Your task to perform on an android device: turn off location history Image 0: 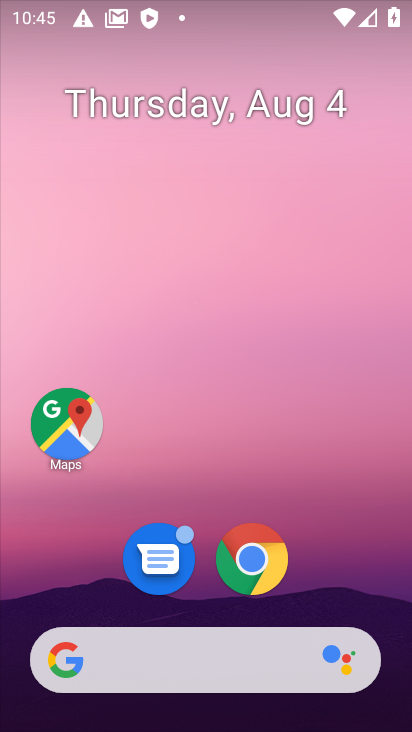
Step 0: drag from (369, 569) to (333, 162)
Your task to perform on an android device: turn off location history Image 1: 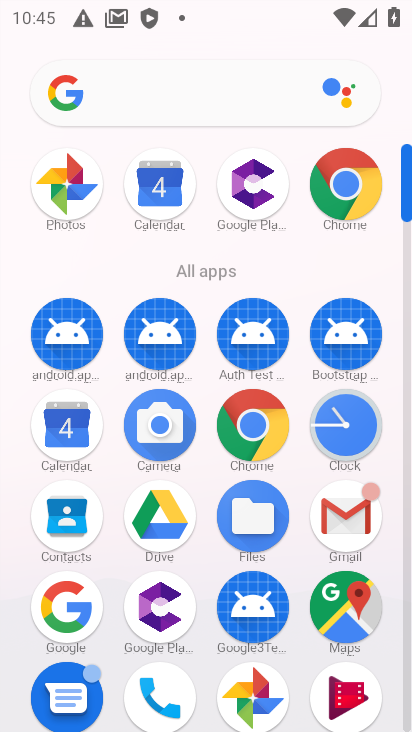
Step 1: click (408, 698)
Your task to perform on an android device: turn off location history Image 2: 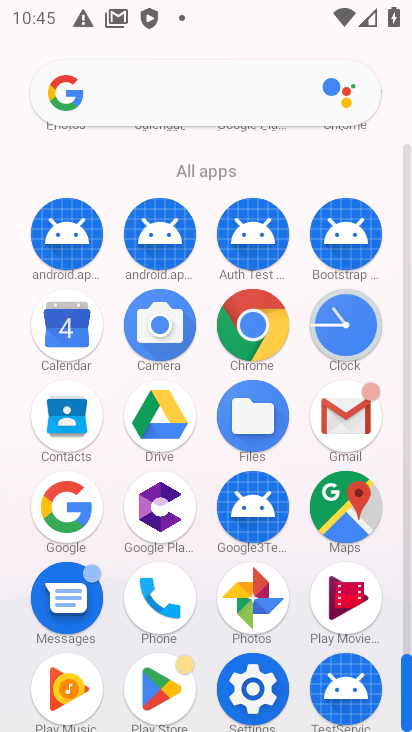
Step 2: click (329, 532)
Your task to perform on an android device: turn off location history Image 3: 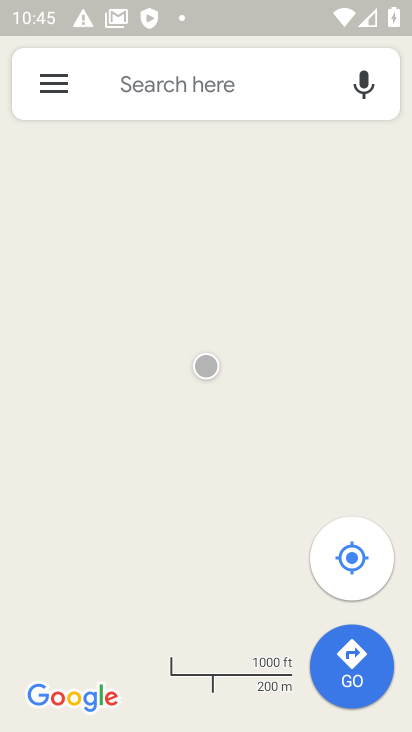
Step 3: click (53, 86)
Your task to perform on an android device: turn off location history Image 4: 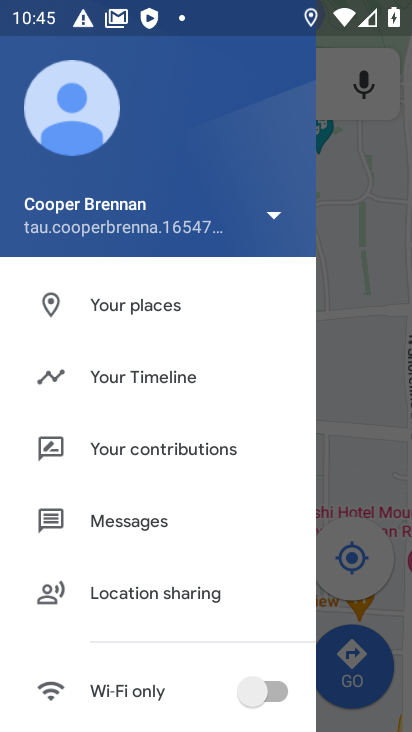
Step 4: drag from (163, 673) to (150, 549)
Your task to perform on an android device: turn off location history Image 5: 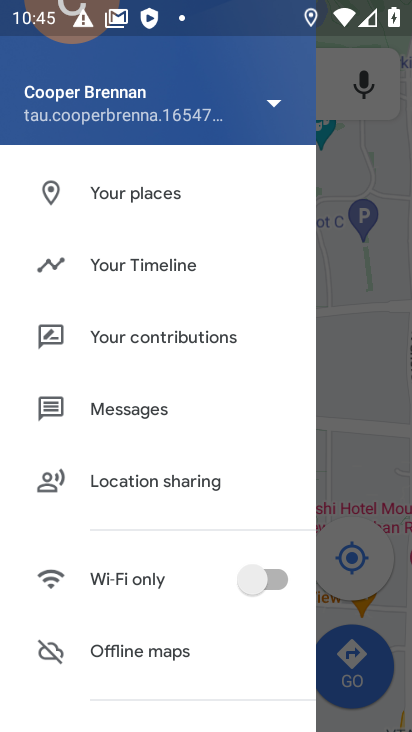
Step 5: click (182, 267)
Your task to perform on an android device: turn off location history Image 6: 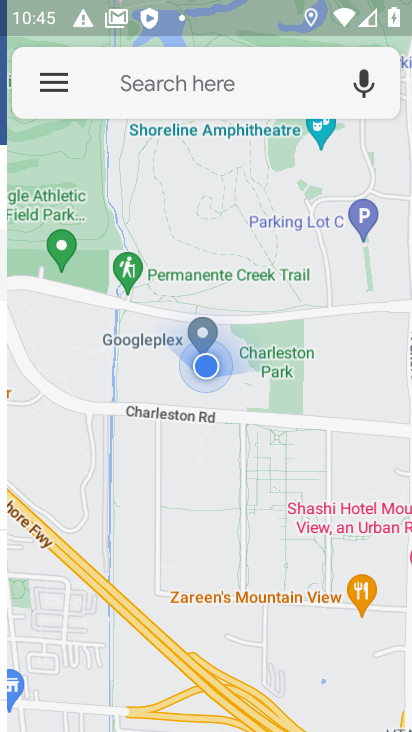
Step 6: click (160, 260)
Your task to perform on an android device: turn off location history Image 7: 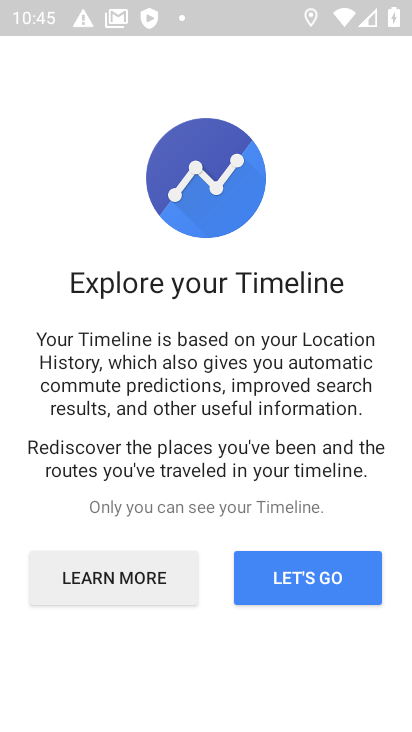
Step 7: click (176, 280)
Your task to perform on an android device: turn off location history Image 8: 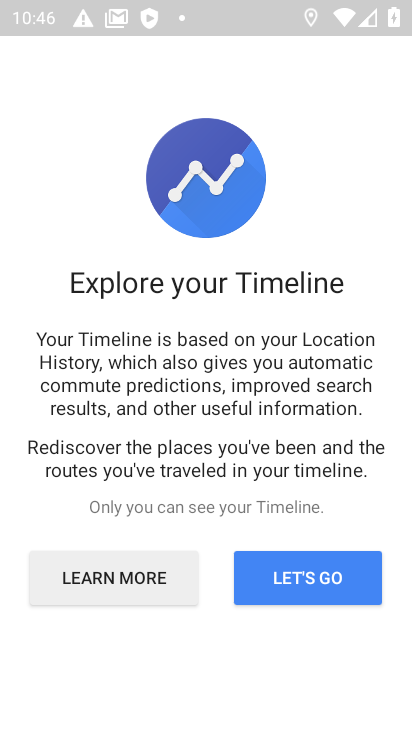
Step 8: click (316, 570)
Your task to perform on an android device: turn off location history Image 9: 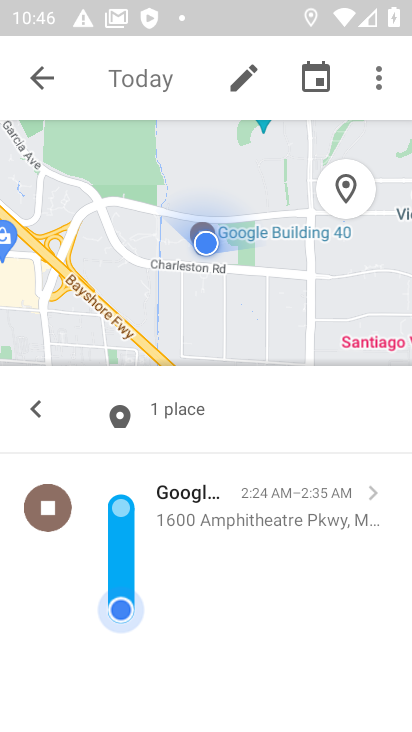
Step 9: click (375, 84)
Your task to perform on an android device: turn off location history Image 10: 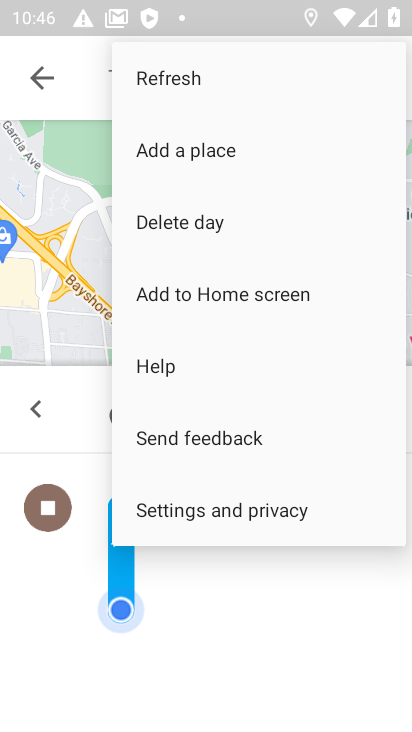
Step 10: click (182, 507)
Your task to perform on an android device: turn off location history Image 11: 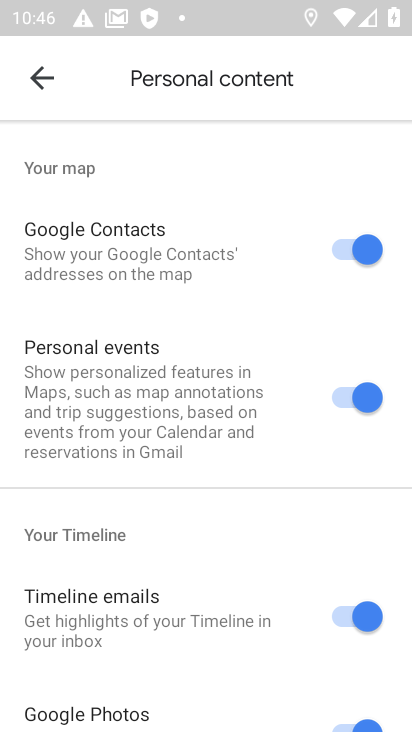
Step 11: drag from (199, 333) to (198, 213)
Your task to perform on an android device: turn off location history Image 12: 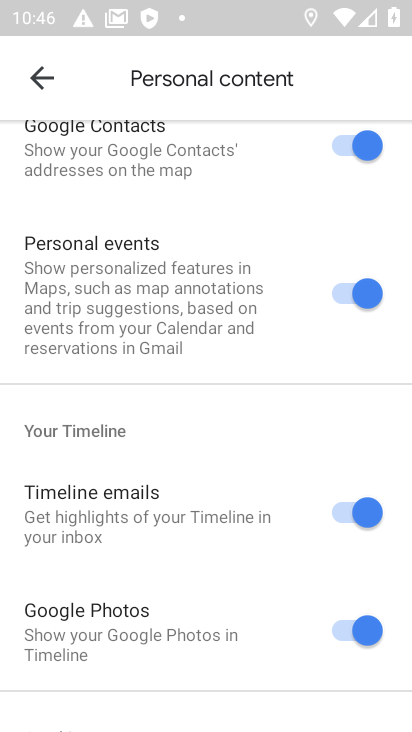
Step 12: drag from (195, 548) to (178, 282)
Your task to perform on an android device: turn off location history Image 13: 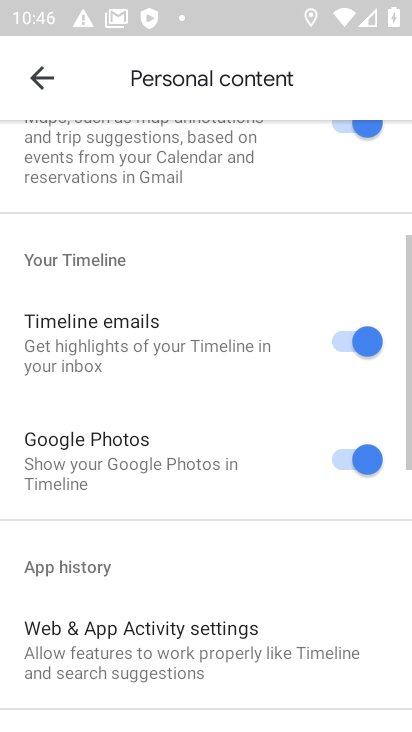
Step 13: drag from (198, 678) to (192, 178)
Your task to perform on an android device: turn off location history Image 14: 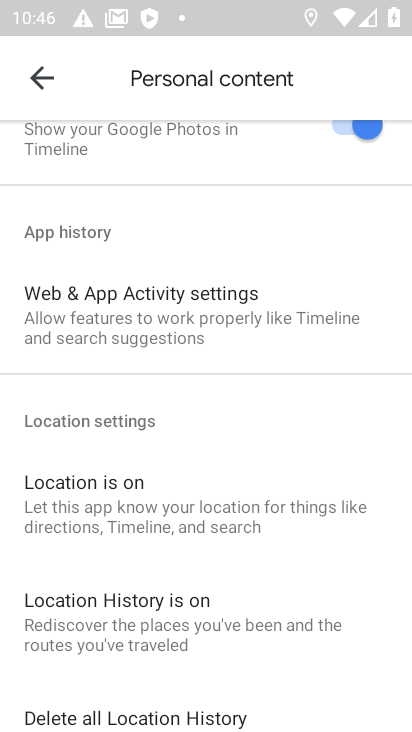
Step 14: drag from (221, 607) to (199, 426)
Your task to perform on an android device: turn off location history Image 15: 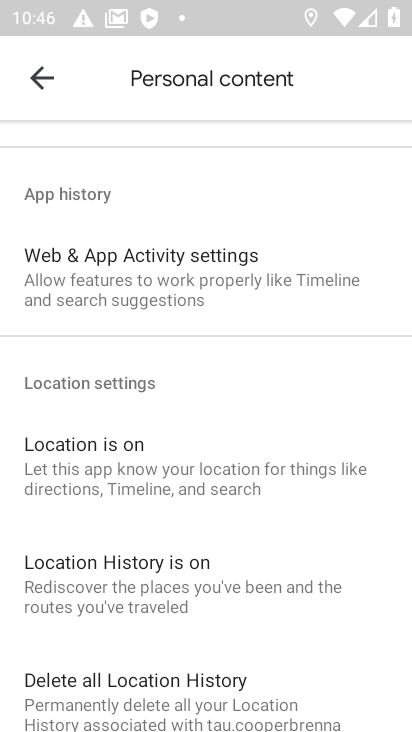
Step 15: click (238, 574)
Your task to perform on an android device: turn off location history Image 16: 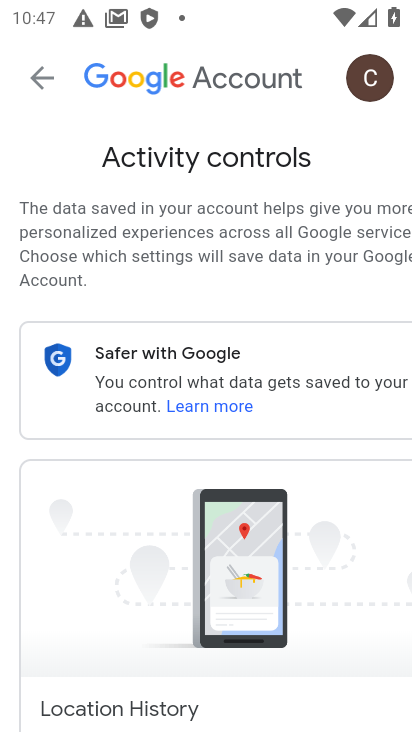
Step 16: drag from (320, 624) to (258, 180)
Your task to perform on an android device: turn off location history Image 17: 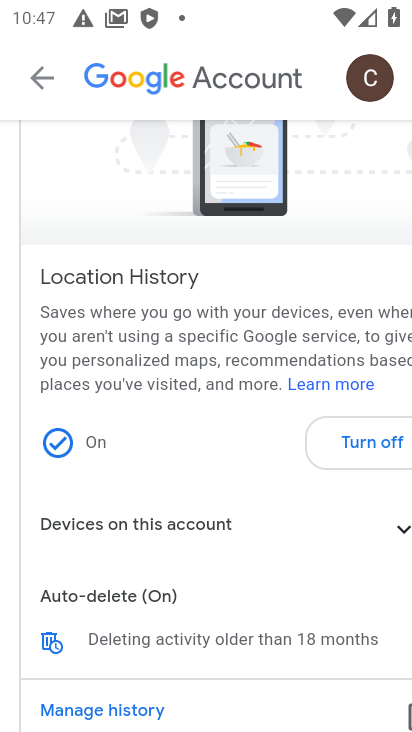
Step 17: click (343, 444)
Your task to perform on an android device: turn off location history Image 18: 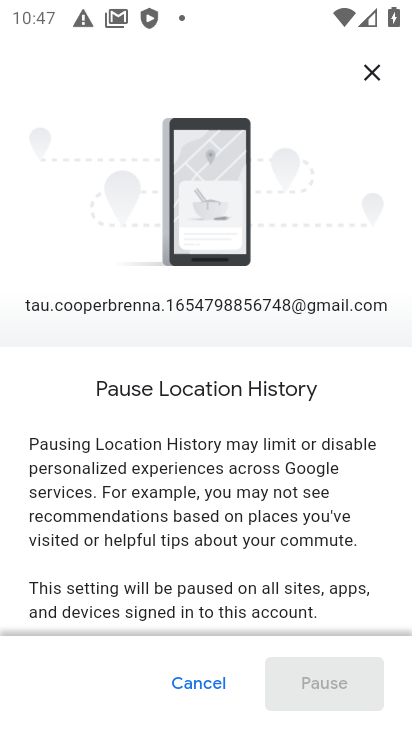
Step 18: drag from (331, 520) to (286, 220)
Your task to perform on an android device: turn off location history Image 19: 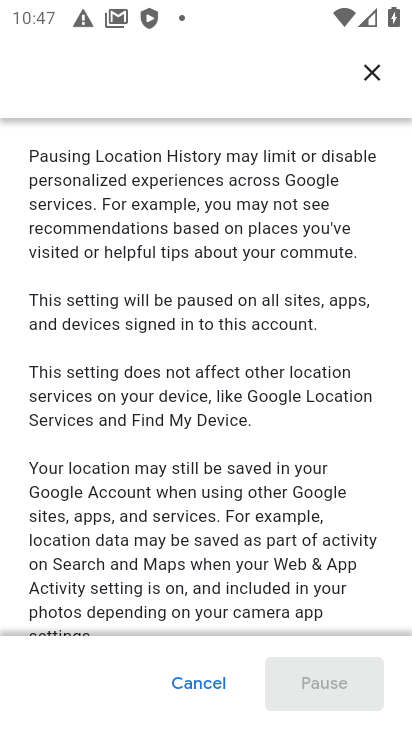
Step 19: drag from (368, 510) to (329, 233)
Your task to perform on an android device: turn off location history Image 20: 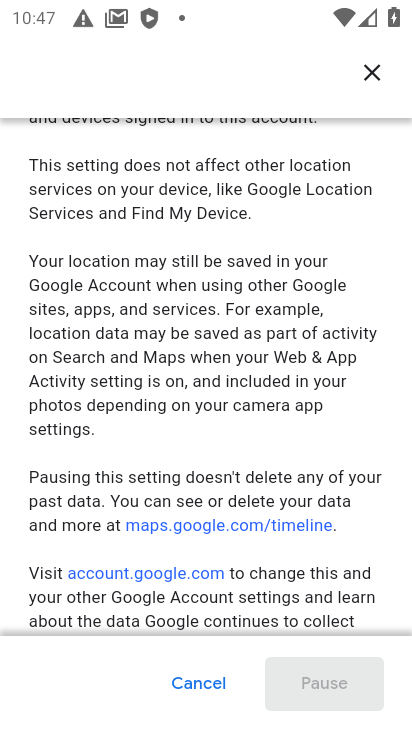
Step 20: drag from (260, 275) to (262, 176)
Your task to perform on an android device: turn off location history Image 21: 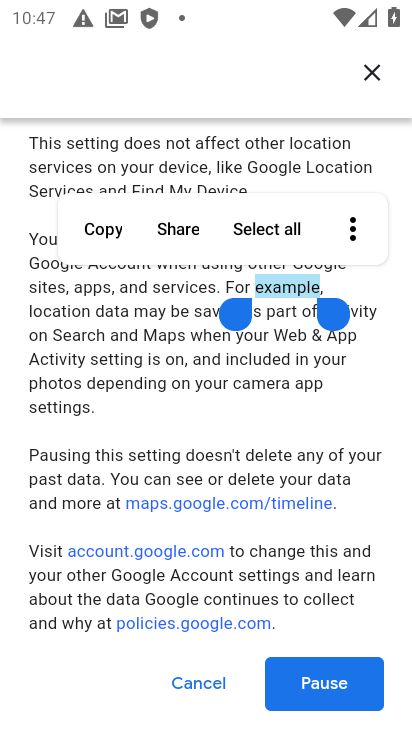
Step 21: click (356, 687)
Your task to perform on an android device: turn off location history Image 22: 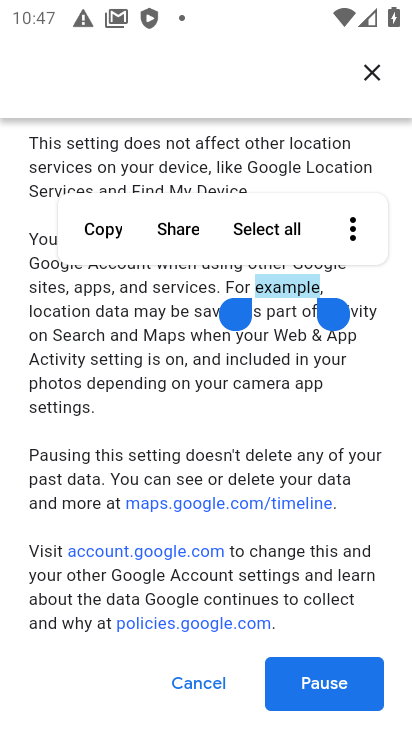
Step 22: click (344, 693)
Your task to perform on an android device: turn off location history Image 23: 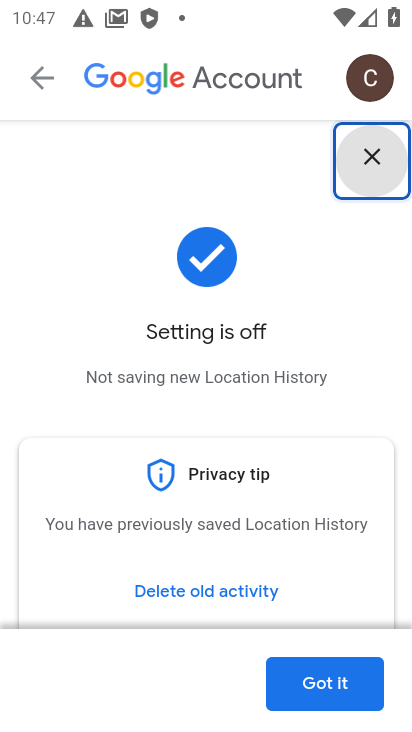
Step 23: drag from (358, 592) to (309, 329)
Your task to perform on an android device: turn off location history Image 24: 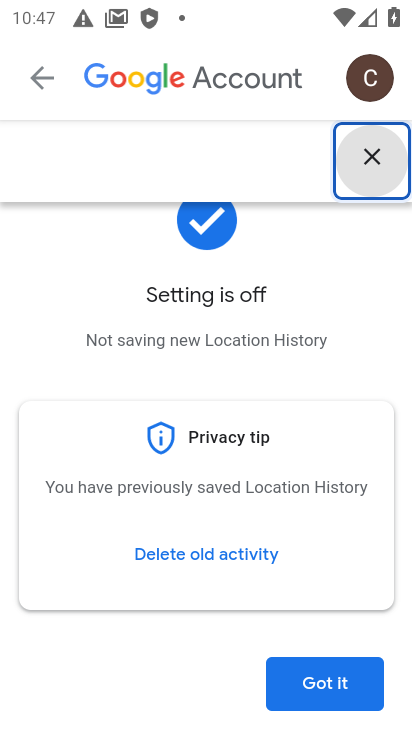
Step 24: click (327, 677)
Your task to perform on an android device: turn off location history Image 25: 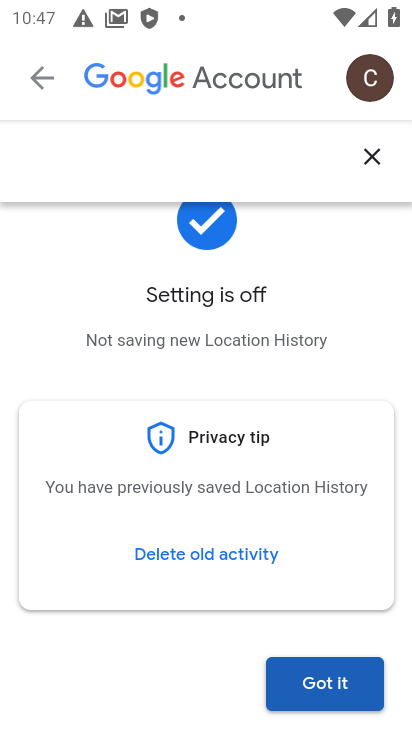
Step 25: click (377, 678)
Your task to perform on an android device: turn off location history Image 26: 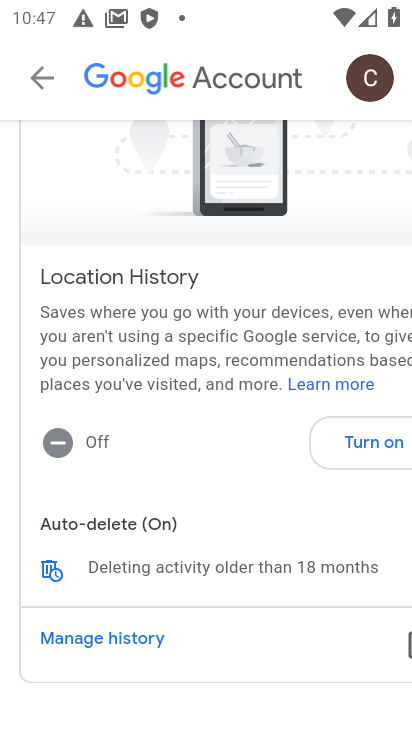
Step 26: task complete